Your task to perform on an android device: toggle improve location accuracy Image 0: 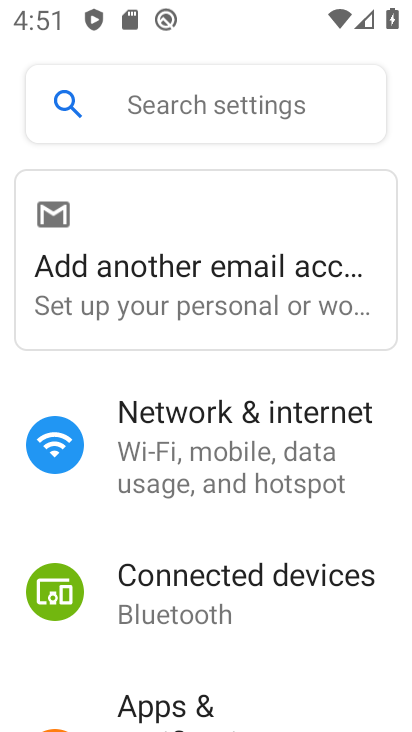
Step 0: drag from (306, 614) to (306, 287)
Your task to perform on an android device: toggle improve location accuracy Image 1: 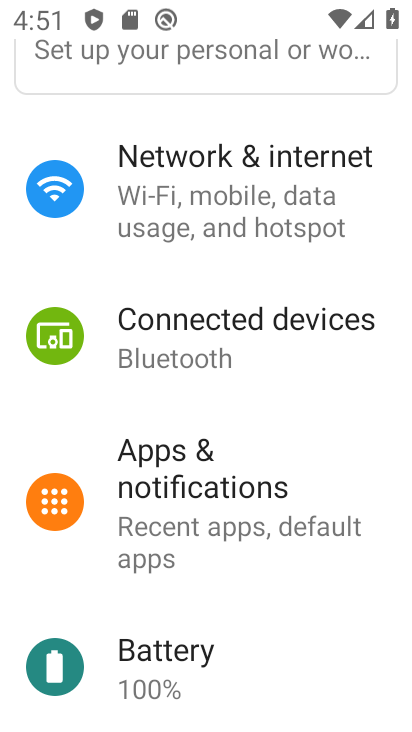
Step 1: drag from (231, 586) to (260, 354)
Your task to perform on an android device: toggle improve location accuracy Image 2: 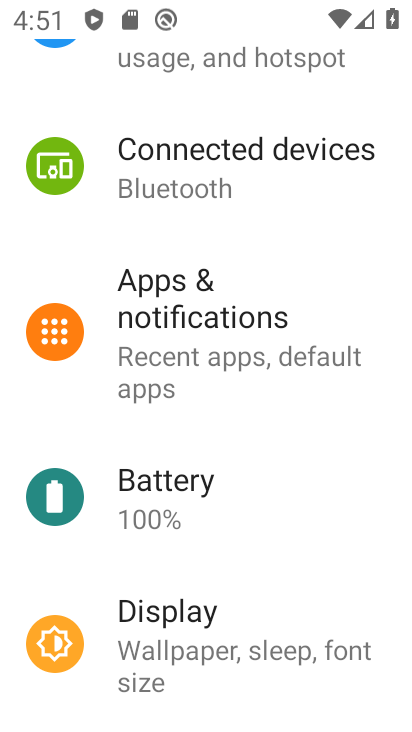
Step 2: drag from (261, 573) to (259, 255)
Your task to perform on an android device: toggle improve location accuracy Image 3: 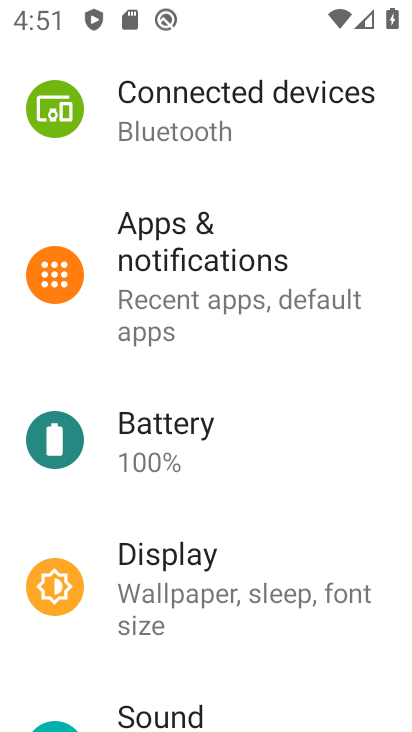
Step 3: drag from (211, 597) to (290, 285)
Your task to perform on an android device: toggle improve location accuracy Image 4: 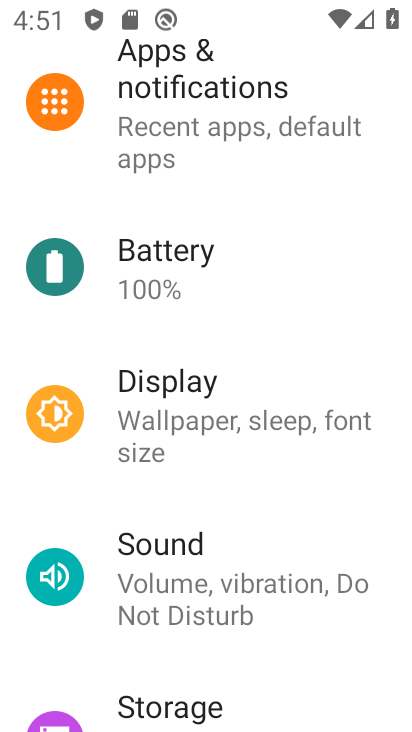
Step 4: drag from (281, 627) to (310, 326)
Your task to perform on an android device: toggle improve location accuracy Image 5: 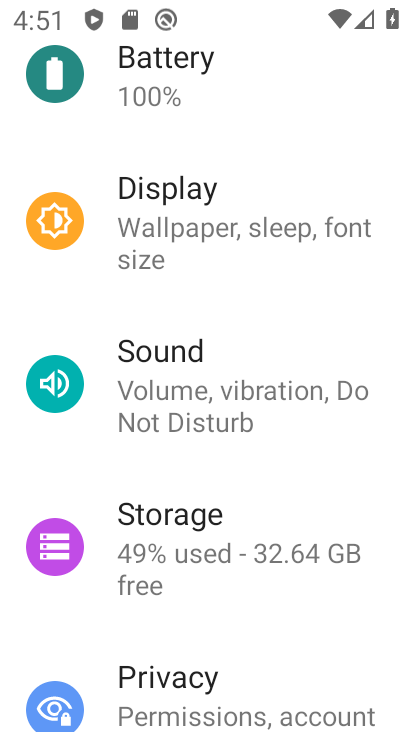
Step 5: drag from (315, 656) to (285, 348)
Your task to perform on an android device: toggle improve location accuracy Image 6: 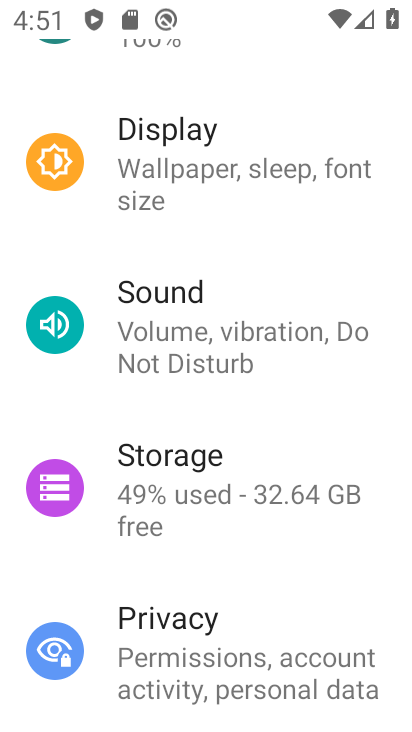
Step 6: drag from (270, 689) to (260, 126)
Your task to perform on an android device: toggle improve location accuracy Image 7: 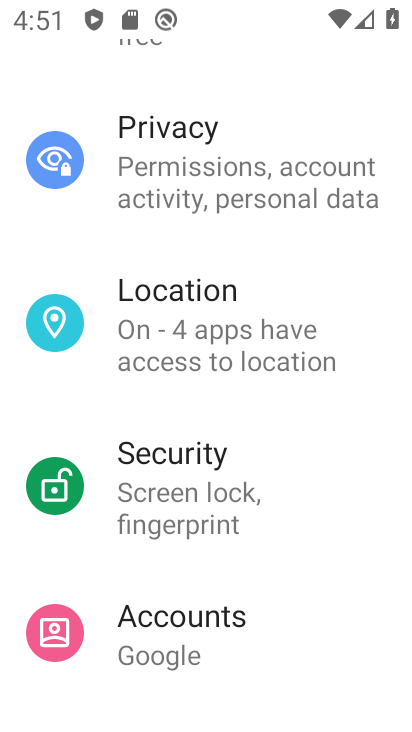
Step 7: click (232, 342)
Your task to perform on an android device: toggle improve location accuracy Image 8: 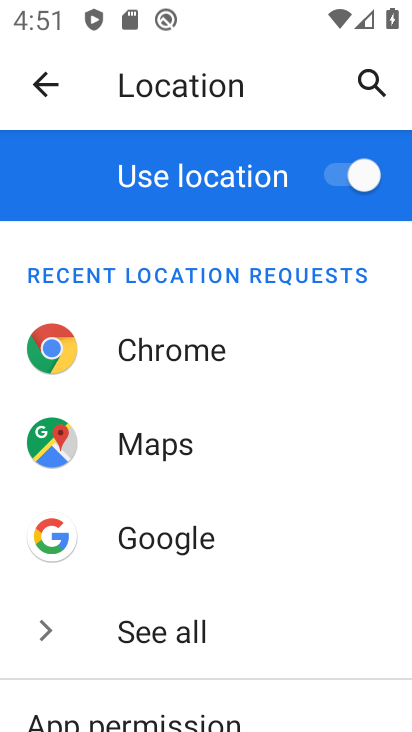
Step 8: drag from (287, 655) to (298, 273)
Your task to perform on an android device: toggle improve location accuracy Image 9: 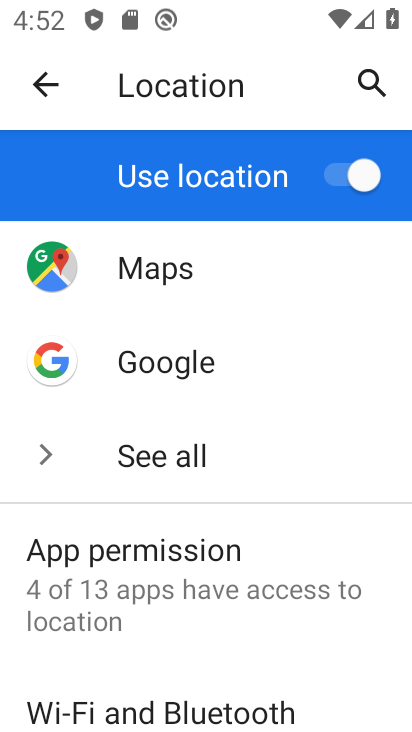
Step 9: drag from (257, 600) to (286, 221)
Your task to perform on an android device: toggle improve location accuracy Image 10: 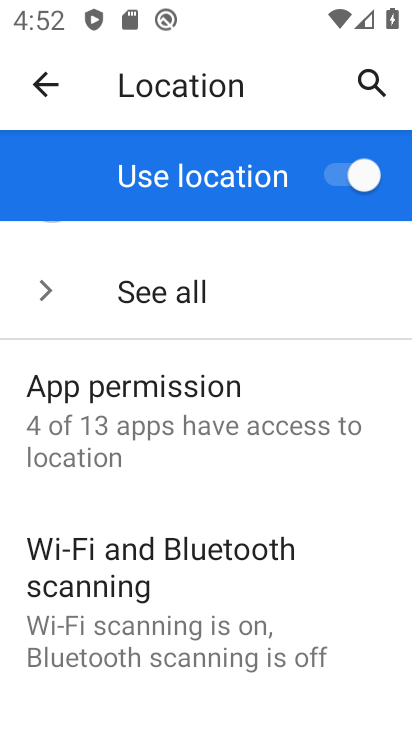
Step 10: drag from (250, 626) to (320, 326)
Your task to perform on an android device: toggle improve location accuracy Image 11: 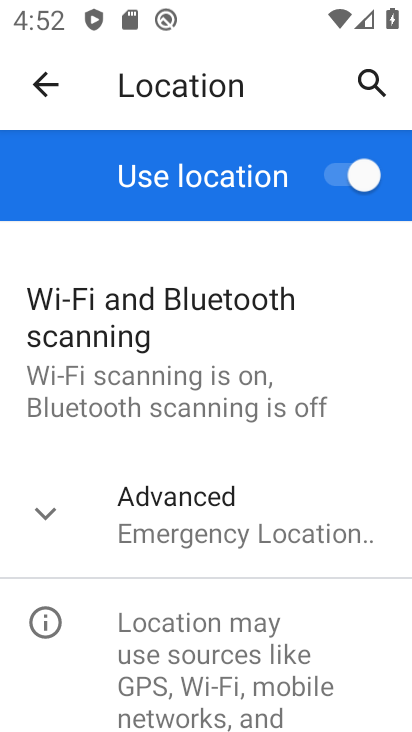
Step 11: click (214, 511)
Your task to perform on an android device: toggle improve location accuracy Image 12: 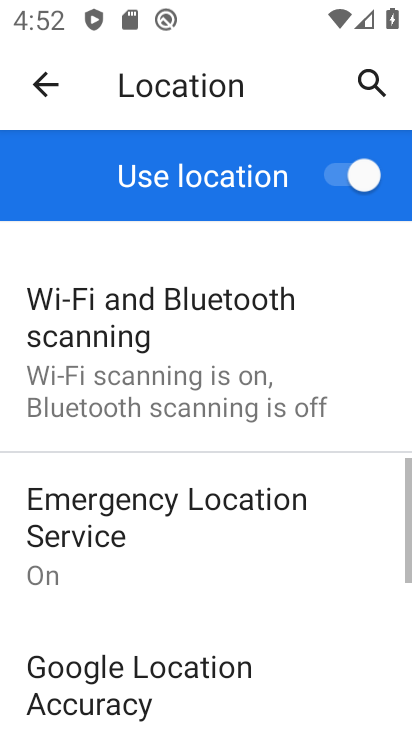
Step 12: drag from (276, 592) to (307, 348)
Your task to perform on an android device: toggle improve location accuracy Image 13: 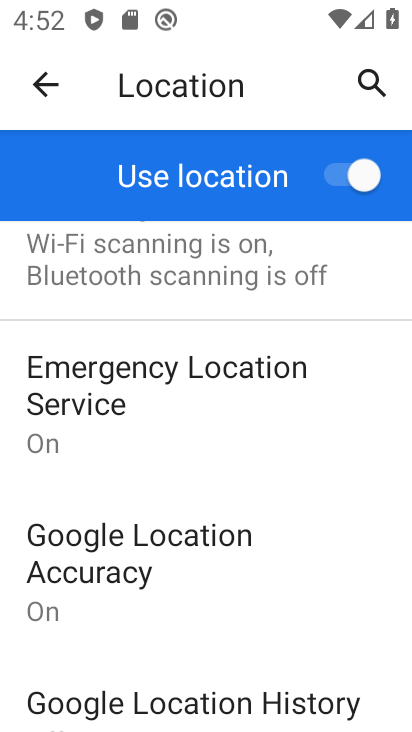
Step 13: click (197, 544)
Your task to perform on an android device: toggle improve location accuracy Image 14: 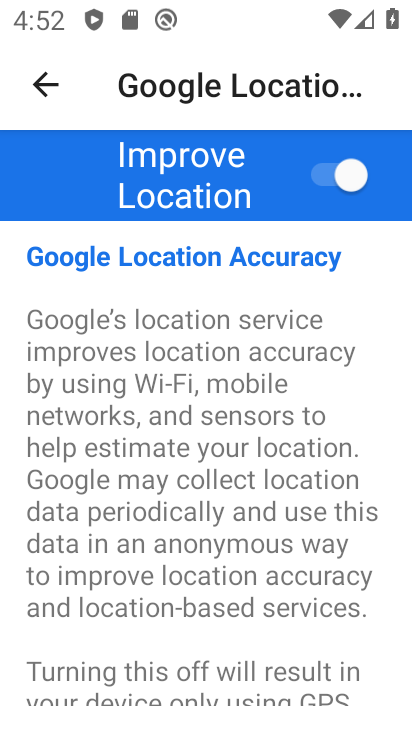
Step 14: click (320, 172)
Your task to perform on an android device: toggle improve location accuracy Image 15: 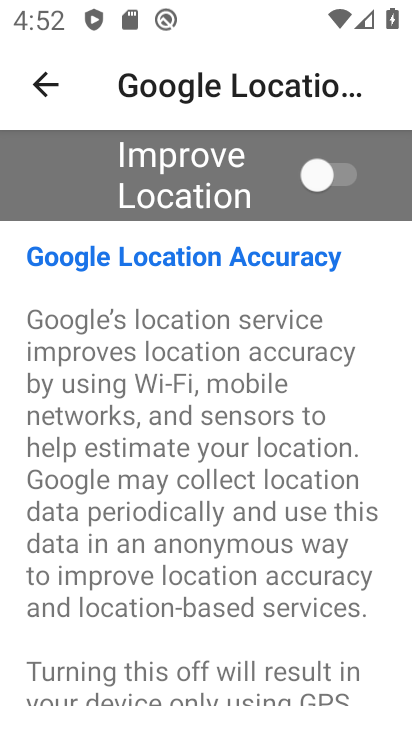
Step 15: task complete